Your task to perform on an android device: turn off notifications in google photos Image 0: 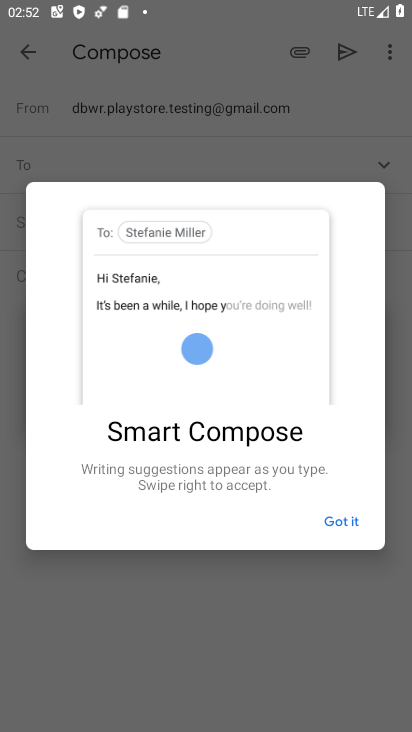
Step 0: press home button
Your task to perform on an android device: turn off notifications in google photos Image 1: 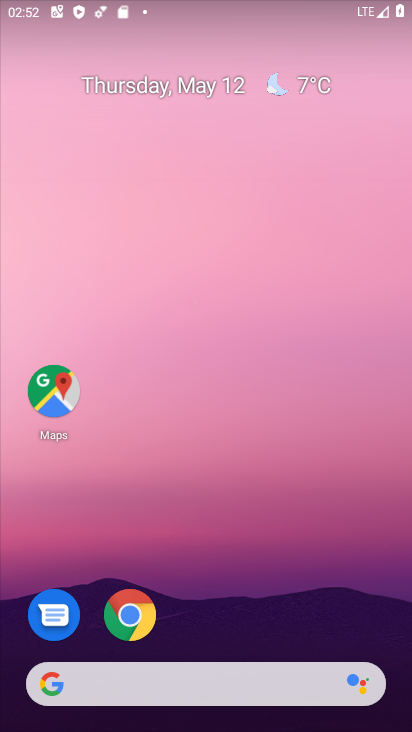
Step 1: drag from (194, 672) to (190, 418)
Your task to perform on an android device: turn off notifications in google photos Image 2: 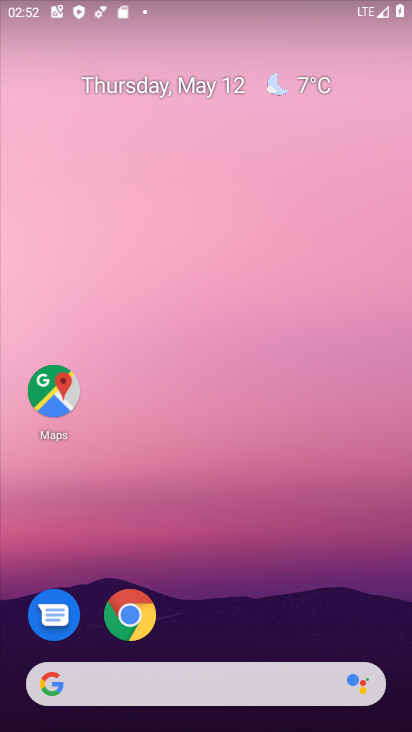
Step 2: drag from (242, 677) to (220, 242)
Your task to perform on an android device: turn off notifications in google photos Image 3: 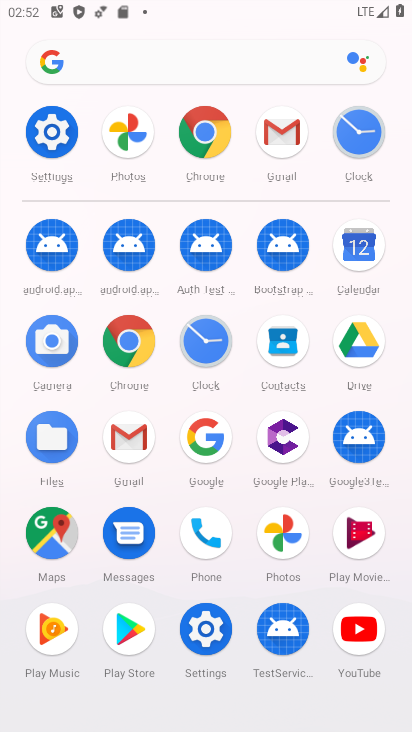
Step 3: click (272, 538)
Your task to perform on an android device: turn off notifications in google photos Image 4: 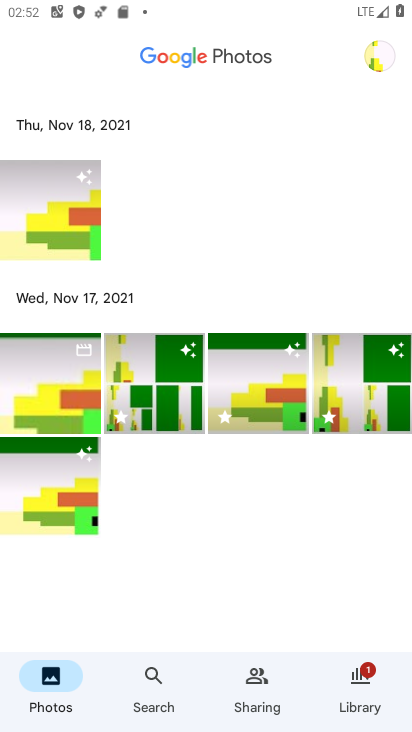
Step 4: click (372, 57)
Your task to perform on an android device: turn off notifications in google photos Image 5: 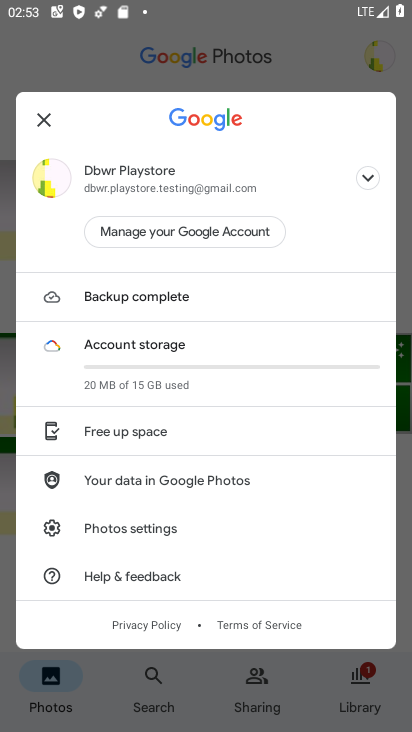
Step 5: click (152, 527)
Your task to perform on an android device: turn off notifications in google photos Image 6: 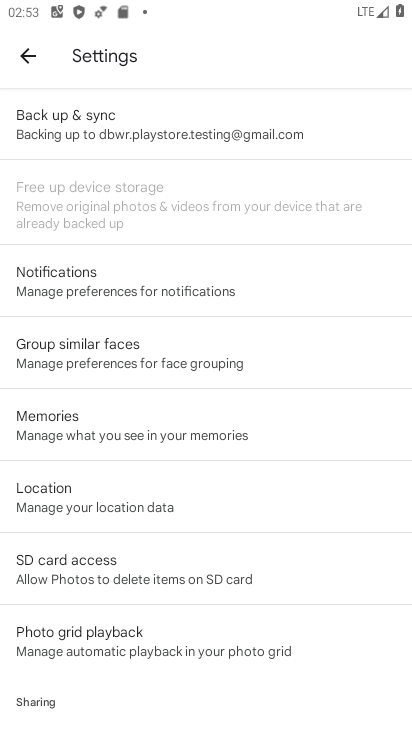
Step 6: click (109, 276)
Your task to perform on an android device: turn off notifications in google photos Image 7: 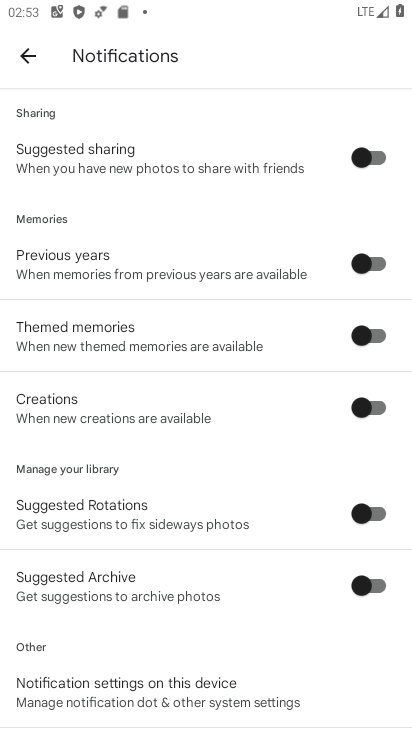
Step 7: click (171, 682)
Your task to perform on an android device: turn off notifications in google photos Image 8: 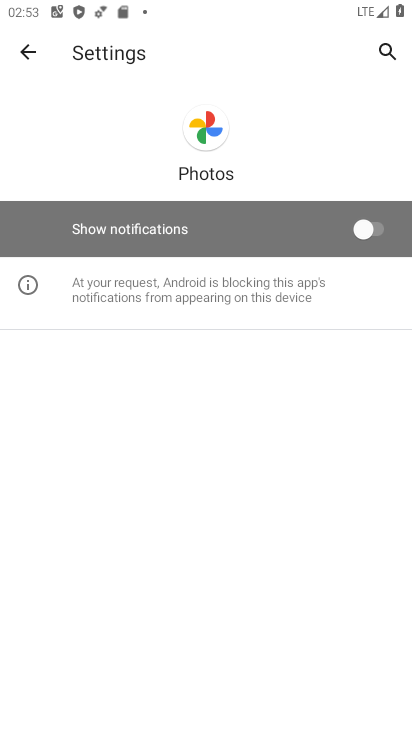
Step 8: task complete